Your task to perform on an android device: Open calendar and show me the third week of next month Image 0: 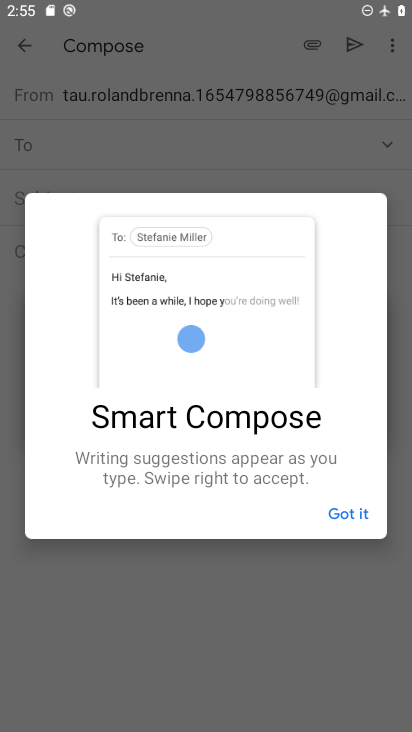
Step 0: press home button
Your task to perform on an android device: Open calendar and show me the third week of next month Image 1: 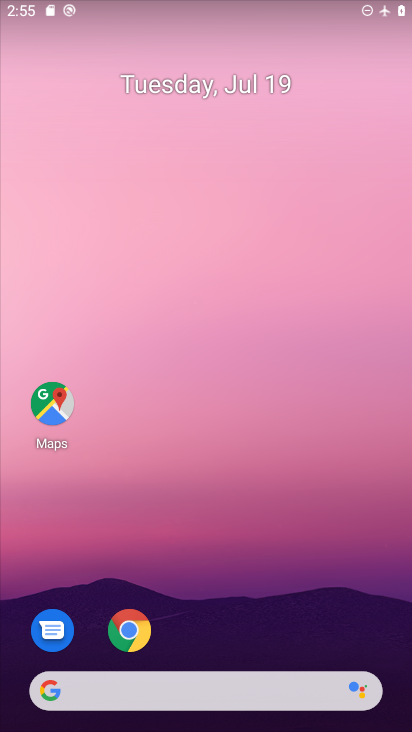
Step 1: drag from (372, 646) to (318, 122)
Your task to perform on an android device: Open calendar and show me the third week of next month Image 2: 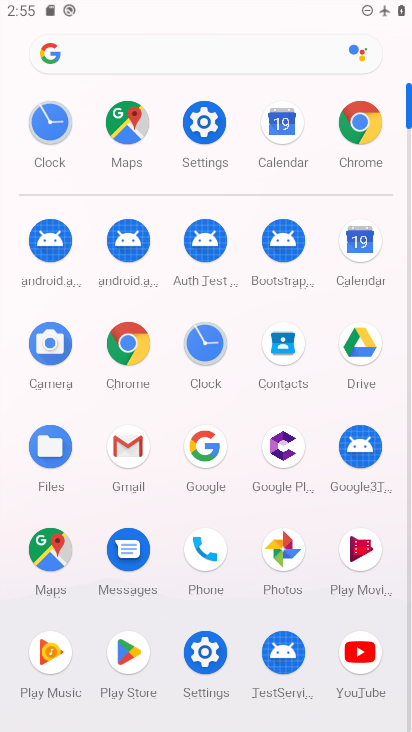
Step 2: click (366, 252)
Your task to perform on an android device: Open calendar and show me the third week of next month Image 3: 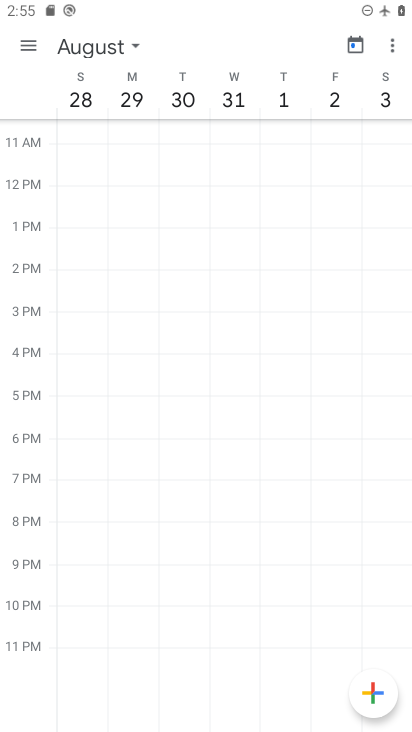
Step 3: click (127, 44)
Your task to perform on an android device: Open calendar and show me the third week of next month Image 4: 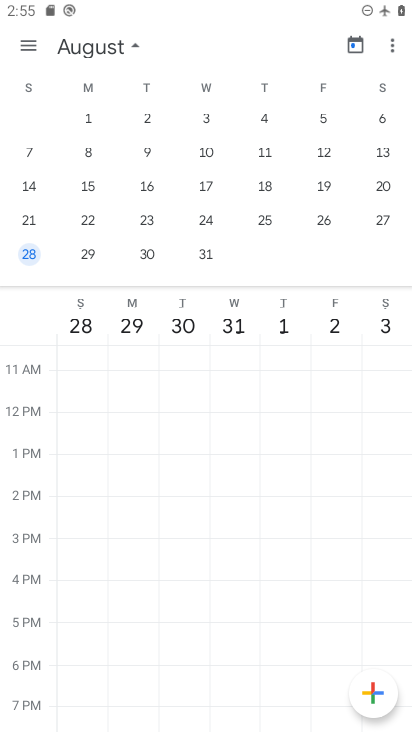
Step 4: click (30, 219)
Your task to perform on an android device: Open calendar and show me the third week of next month Image 5: 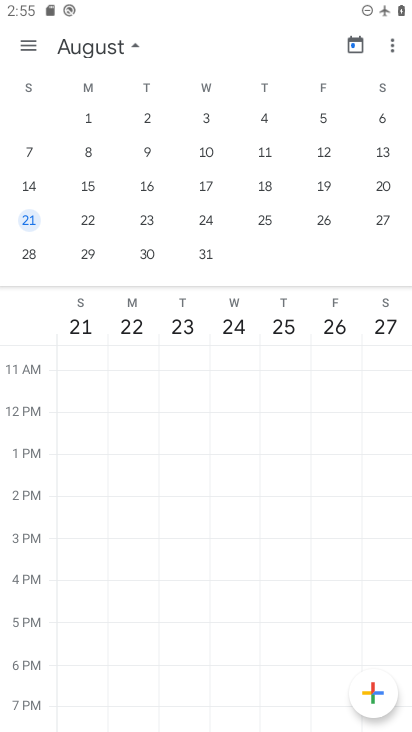
Step 5: task complete